Your task to perform on an android device: Do I have any events tomorrow? Image 0: 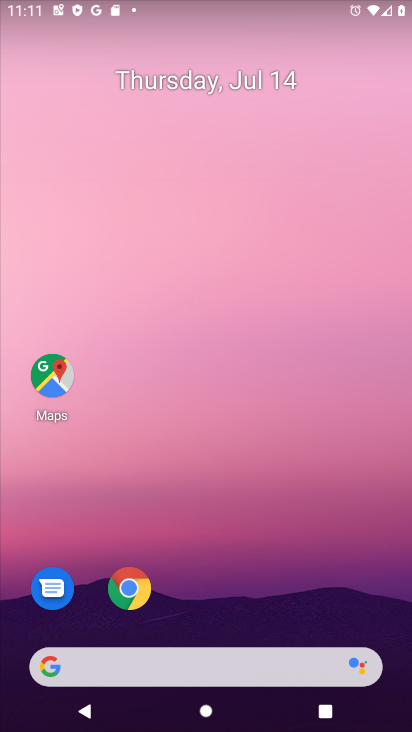
Step 0: press home button
Your task to perform on an android device: Do I have any events tomorrow? Image 1: 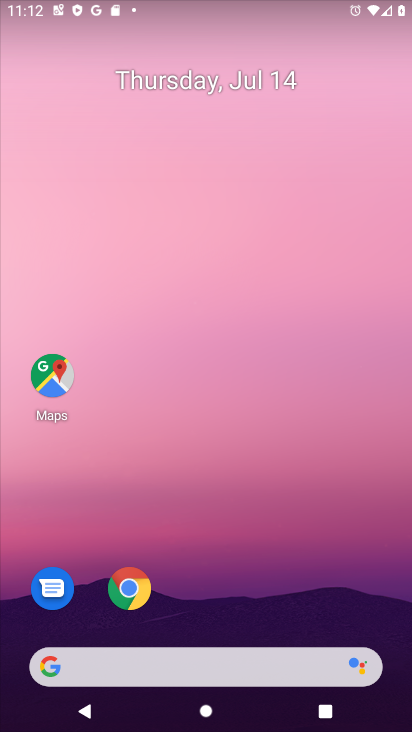
Step 1: drag from (201, 557) to (284, 189)
Your task to perform on an android device: Do I have any events tomorrow? Image 2: 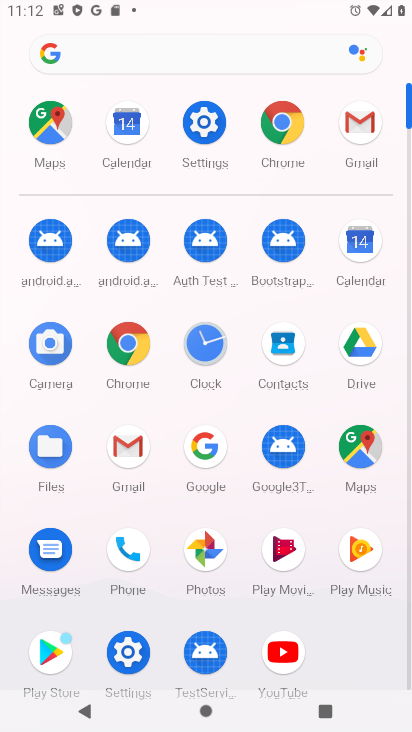
Step 2: click (345, 238)
Your task to perform on an android device: Do I have any events tomorrow? Image 3: 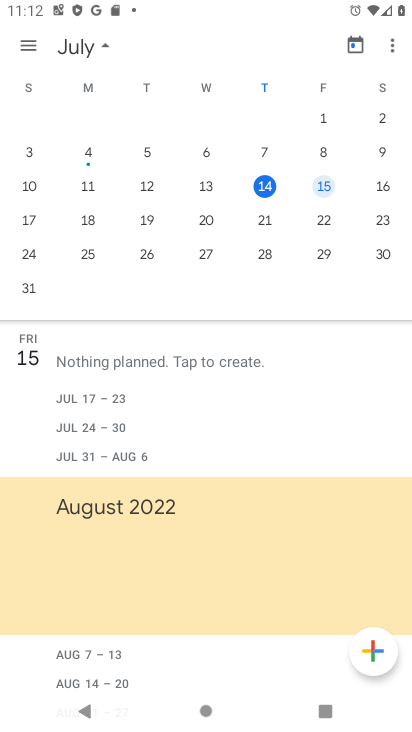
Step 3: click (382, 187)
Your task to perform on an android device: Do I have any events tomorrow? Image 4: 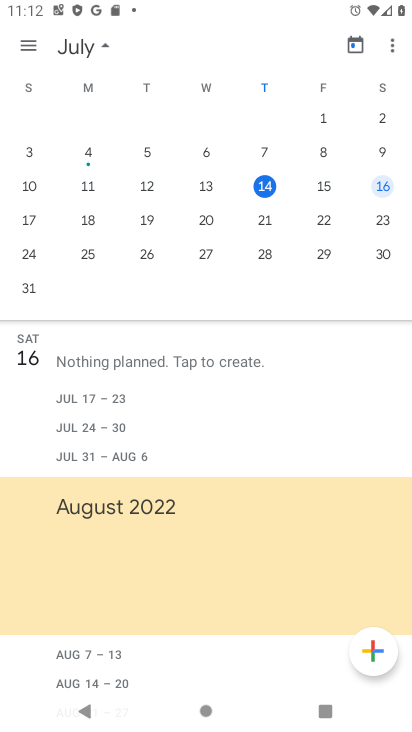
Step 4: click (91, 51)
Your task to perform on an android device: Do I have any events tomorrow? Image 5: 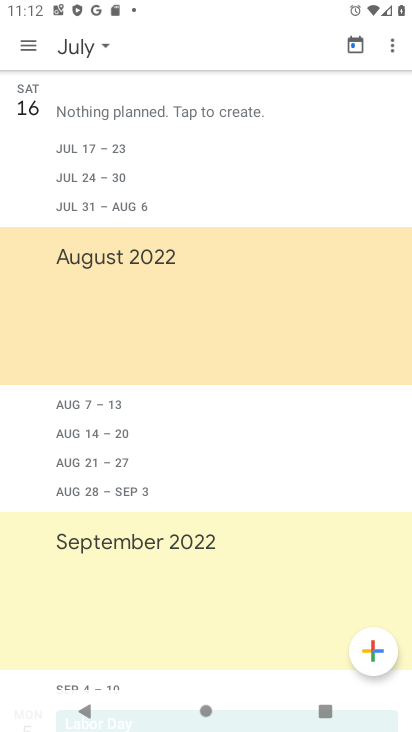
Step 5: task complete